Your task to perform on an android device: Go to sound settings Image 0: 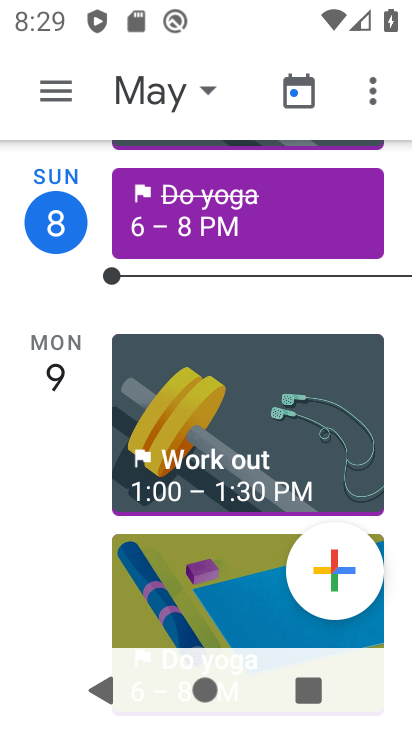
Step 0: press home button
Your task to perform on an android device: Go to sound settings Image 1: 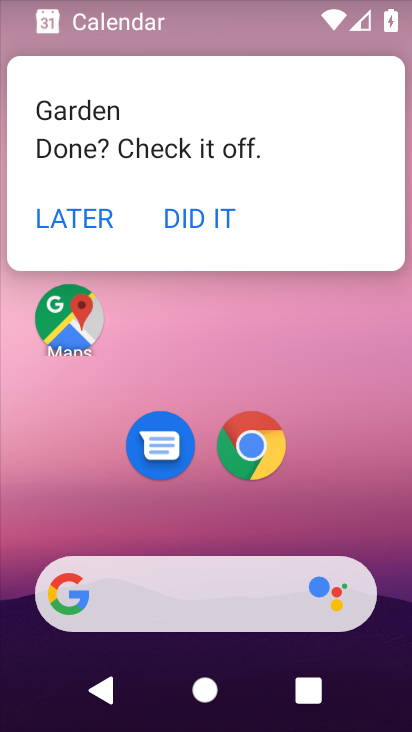
Step 1: drag from (364, 535) to (363, 470)
Your task to perform on an android device: Go to sound settings Image 2: 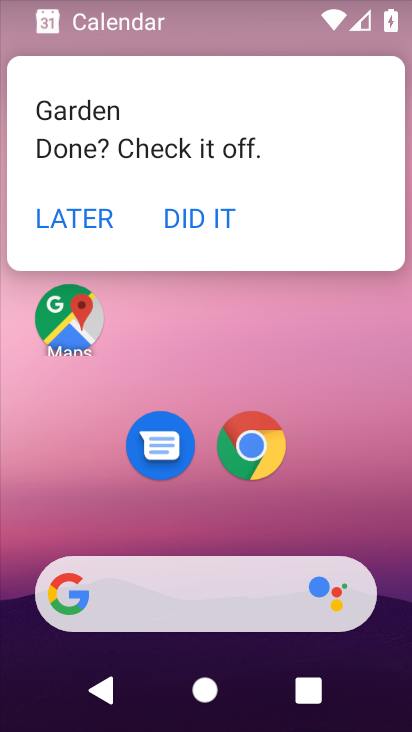
Step 2: click (97, 219)
Your task to perform on an android device: Go to sound settings Image 3: 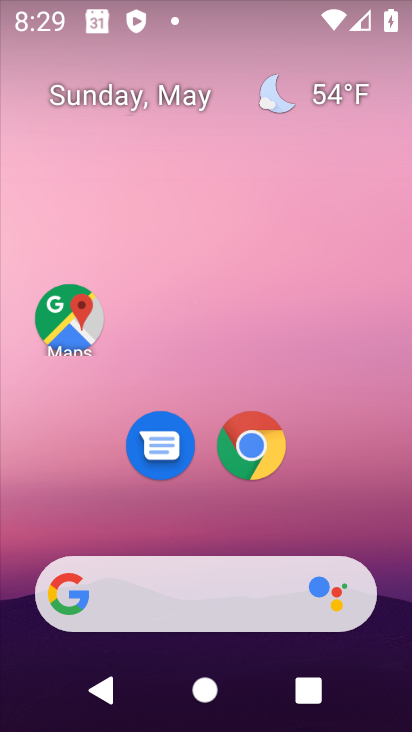
Step 3: drag from (380, 505) to (262, 8)
Your task to perform on an android device: Go to sound settings Image 4: 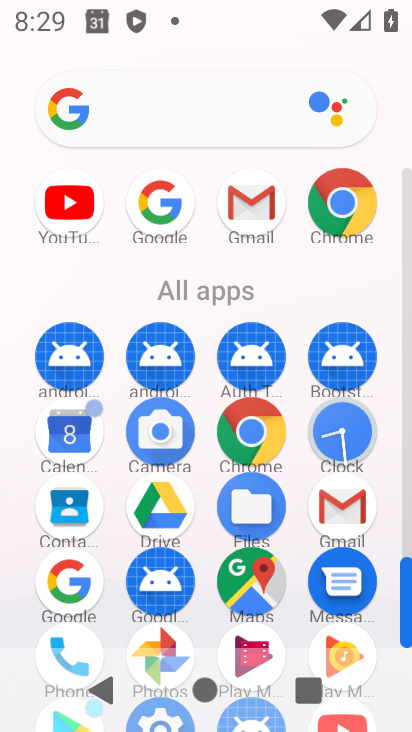
Step 4: drag from (391, 516) to (390, 237)
Your task to perform on an android device: Go to sound settings Image 5: 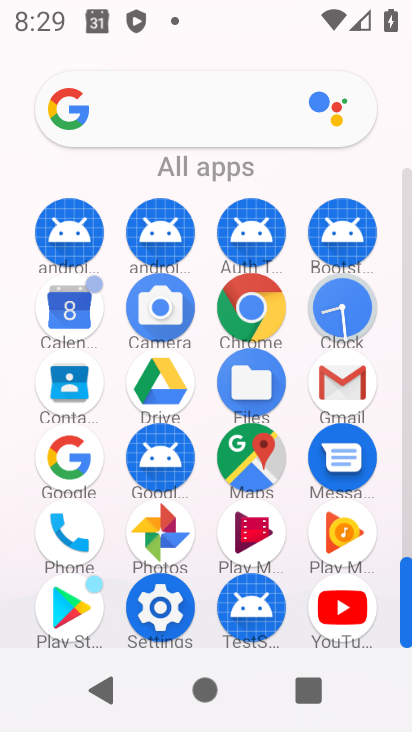
Step 5: click (170, 601)
Your task to perform on an android device: Go to sound settings Image 6: 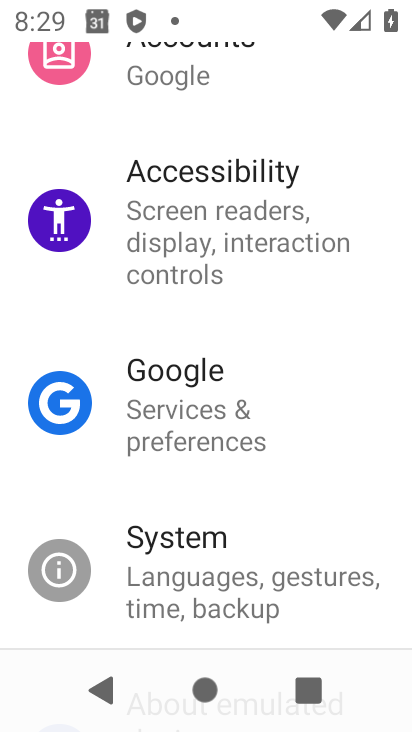
Step 6: drag from (291, 136) to (272, 638)
Your task to perform on an android device: Go to sound settings Image 7: 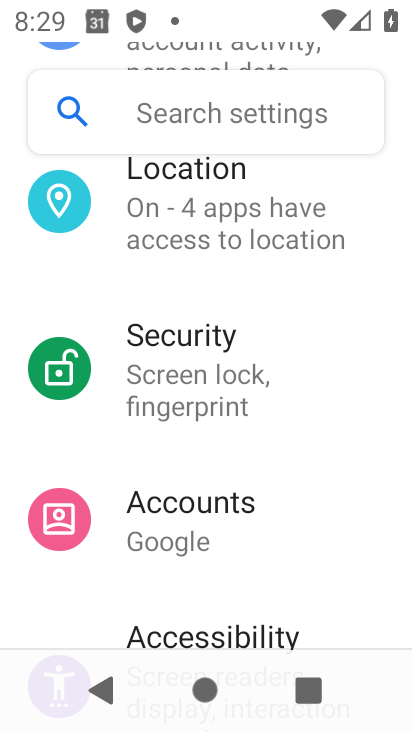
Step 7: drag from (219, 282) to (206, 615)
Your task to perform on an android device: Go to sound settings Image 8: 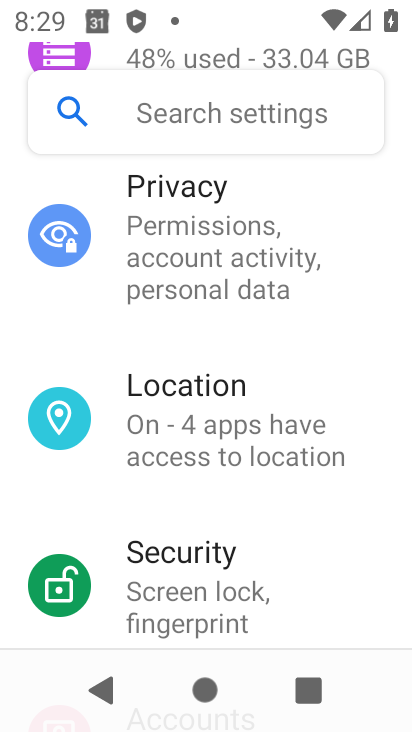
Step 8: drag from (270, 168) to (260, 576)
Your task to perform on an android device: Go to sound settings Image 9: 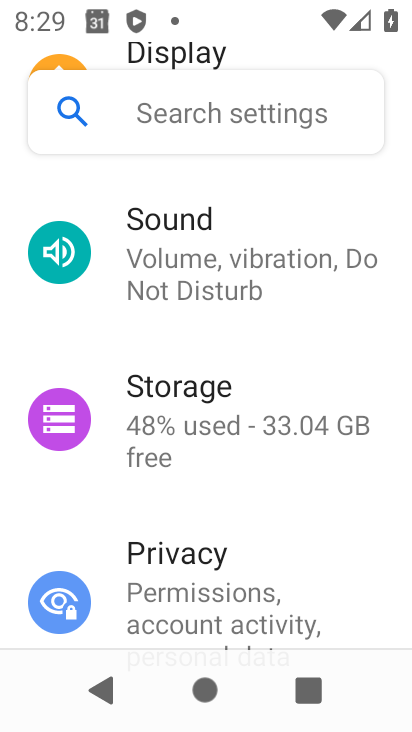
Step 9: click (218, 288)
Your task to perform on an android device: Go to sound settings Image 10: 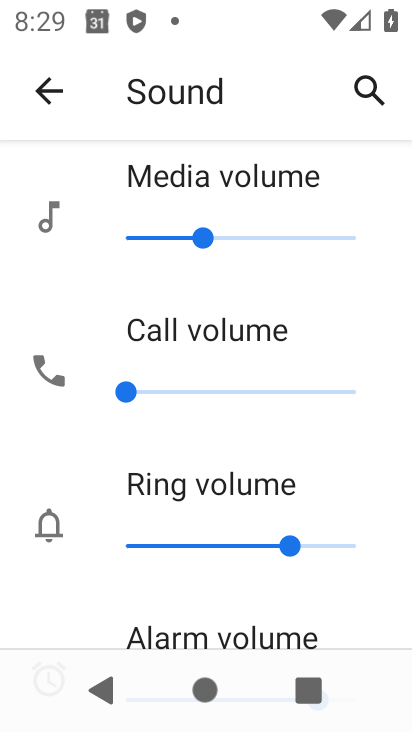
Step 10: task complete